Your task to perform on an android device: add a label to a message in the gmail app Image 0: 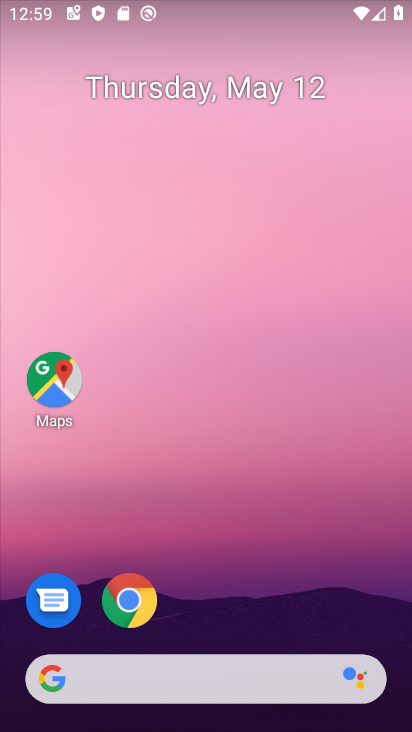
Step 0: drag from (190, 649) to (273, 193)
Your task to perform on an android device: add a label to a message in the gmail app Image 1: 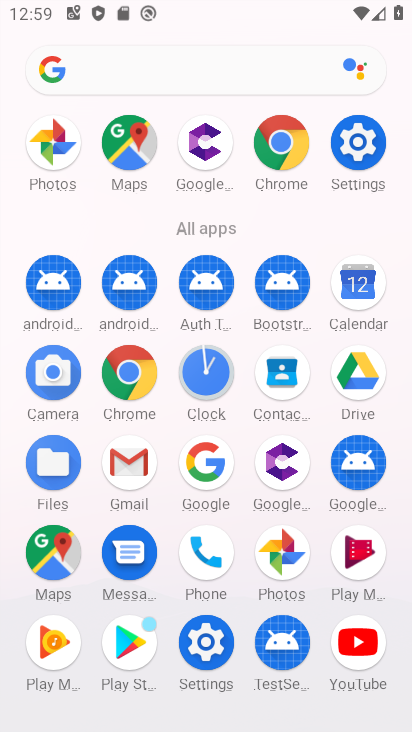
Step 1: click (121, 460)
Your task to perform on an android device: add a label to a message in the gmail app Image 2: 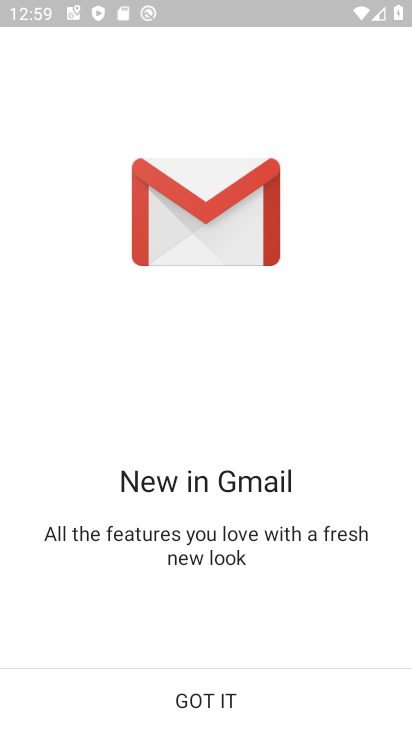
Step 2: click (228, 697)
Your task to perform on an android device: add a label to a message in the gmail app Image 3: 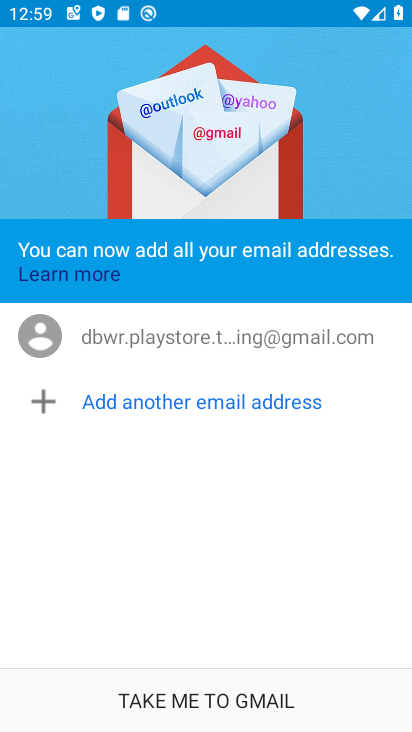
Step 3: click (228, 697)
Your task to perform on an android device: add a label to a message in the gmail app Image 4: 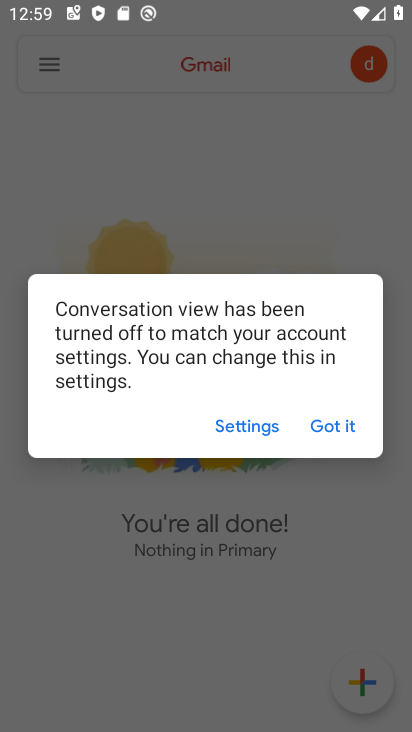
Step 4: click (318, 419)
Your task to perform on an android device: add a label to a message in the gmail app Image 5: 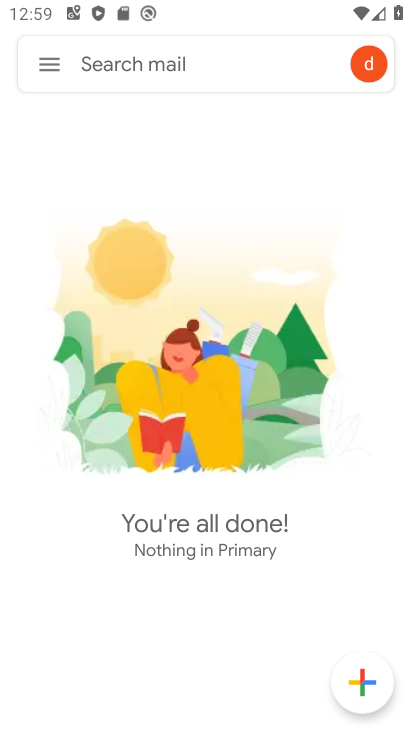
Step 5: click (40, 50)
Your task to perform on an android device: add a label to a message in the gmail app Image 6: 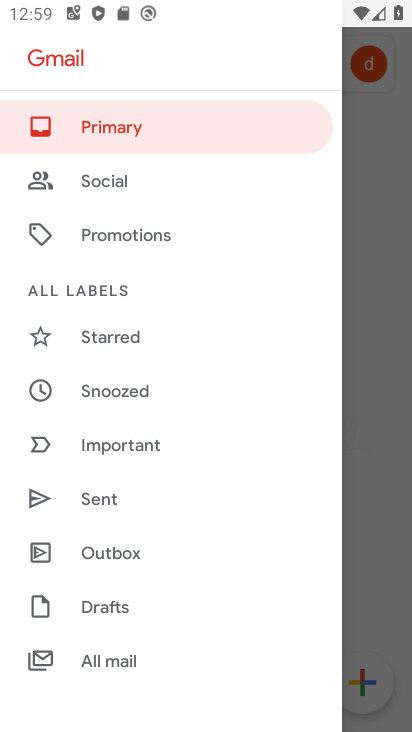
Step 6: click (118, 653)
Your task to perform on an android device: add a label to a message in the gmail app Image 7: 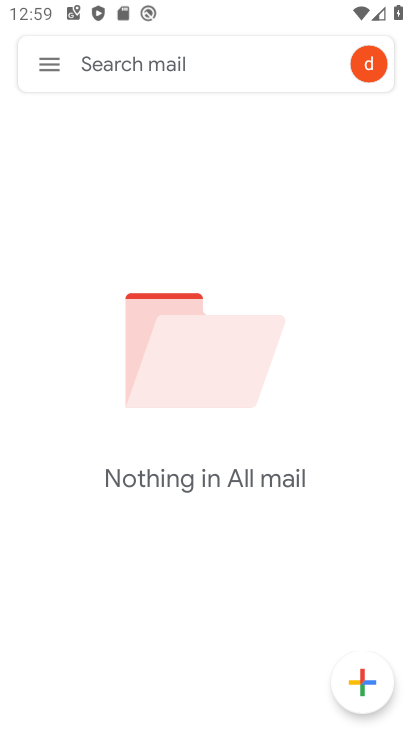
Step 7: task complete